Your task to perform on an android device: change keyboard looks Image 0: 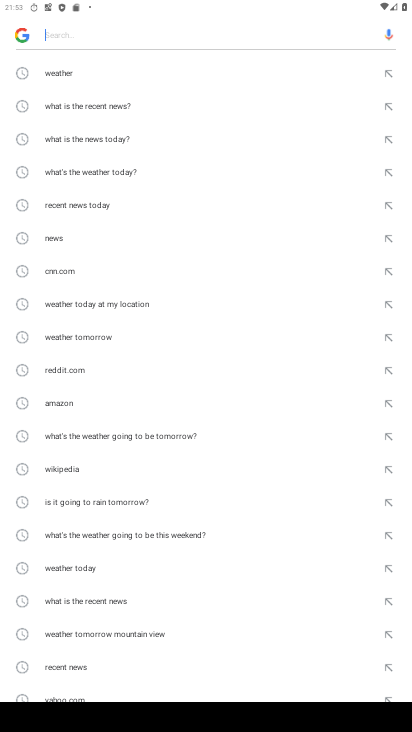
Step 0: press home button
Your task to perform on an android device: change keyboard looks Image 1: 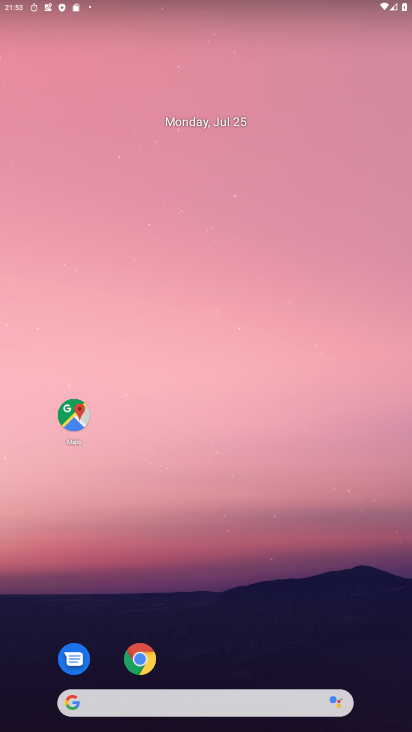
Step 1: drag from (227, 655) to (213, 243)
Your task to perform on an android device: change keyboard looks Image 2: 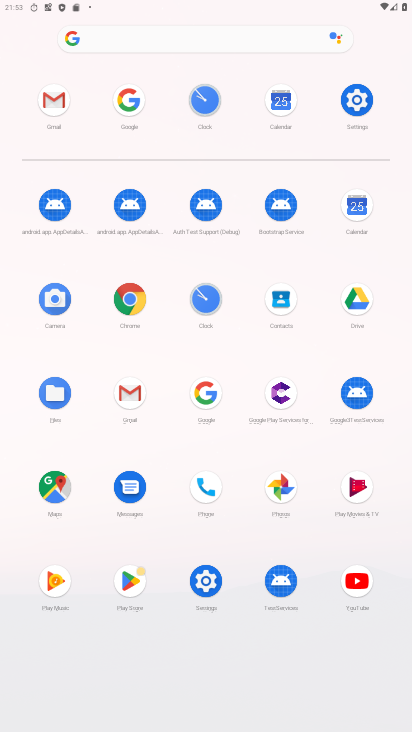
Step 2: click (342, 99)
Your task to perform on an android device: change keyboard looks Image 3: 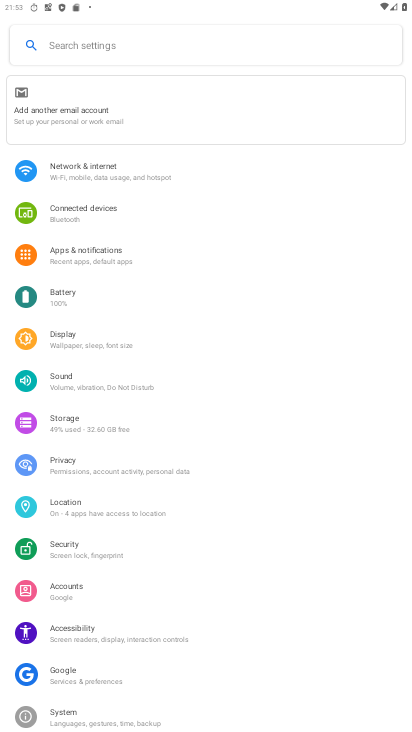
Step 3: drag from (163, 668) to (169, 211)
Your task to perform on an android device: change keyboard looks Image 4: 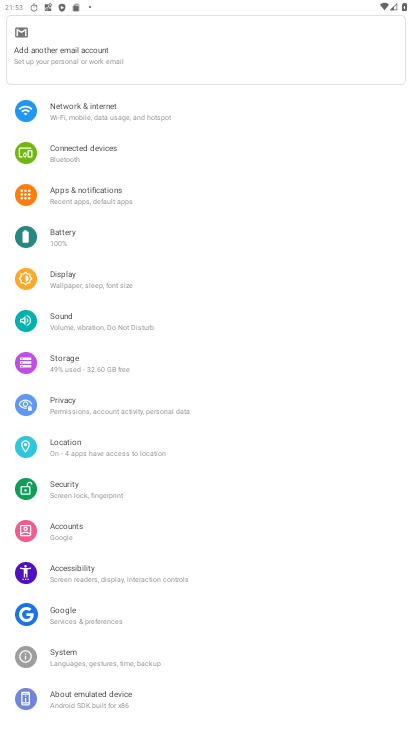
Step 4: click (98, 662)
Your task to perform on an android device: change keyboard looks Image 5: 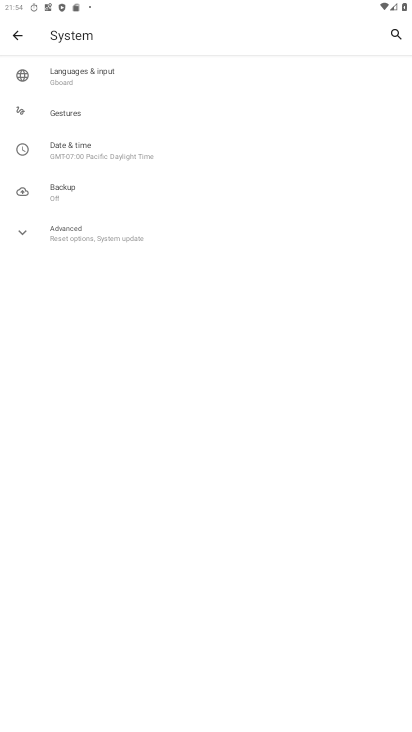
Step 5: click (124, 84)
Your task to perform on an android device: change keyboard looks Image 6: 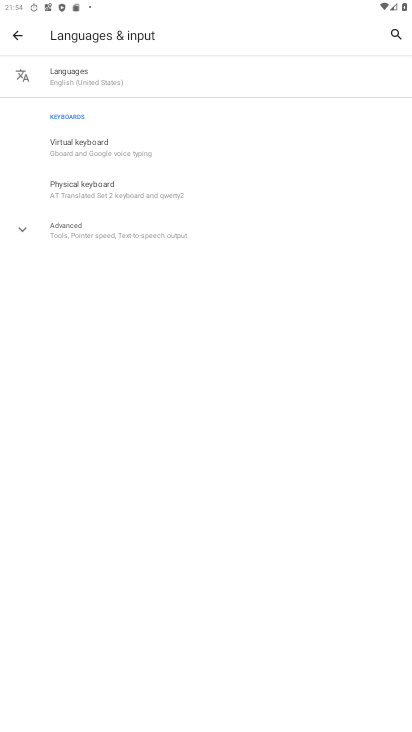
Step 6: click (109, 154)
Your task to perform on an android device: change keyboard looks Image 7: 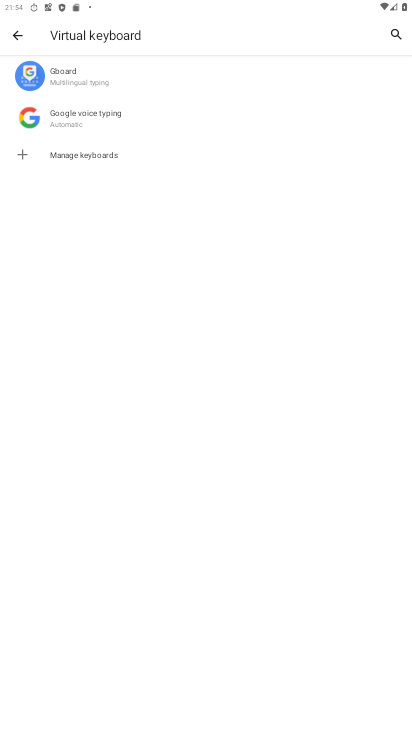
Step 7: click (81, 88)
Your task to perform on an android device: change keyboard looks Image 8: 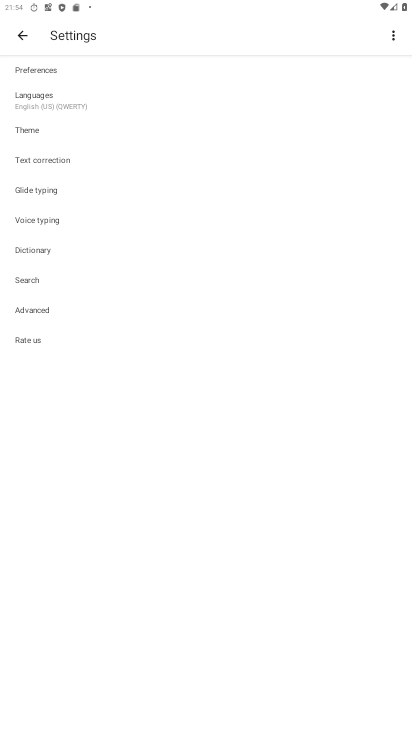
Step 8: click (65, 141)
Your task to perform on an android device: change keyboard looks Image 9: 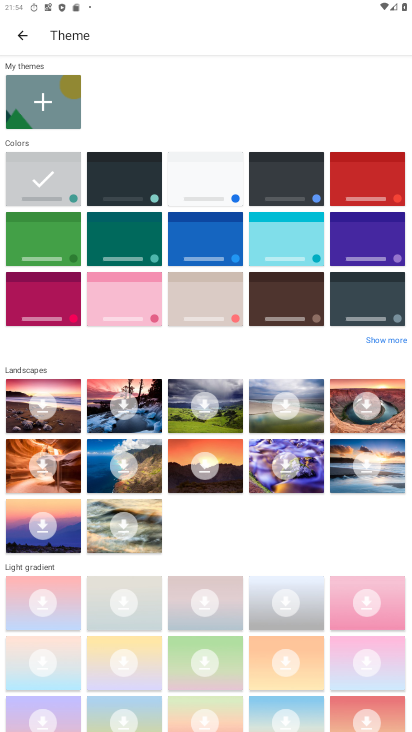
Step 9: click (217, 258)
Your task to perform on an android device: change keyboard looks Image 10: 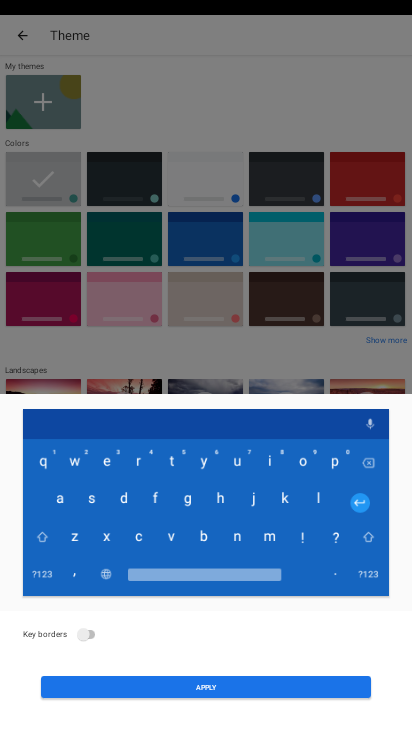
Step 10: click (267, 695)
Your task to perform on an android device: change keyboard looks Image 11: 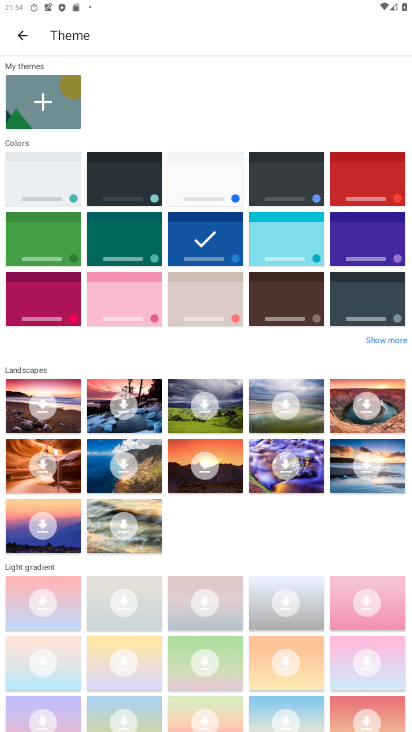
Step 11: task complete